Your task to perform on an android device: Open Yahoo.com Image 0: 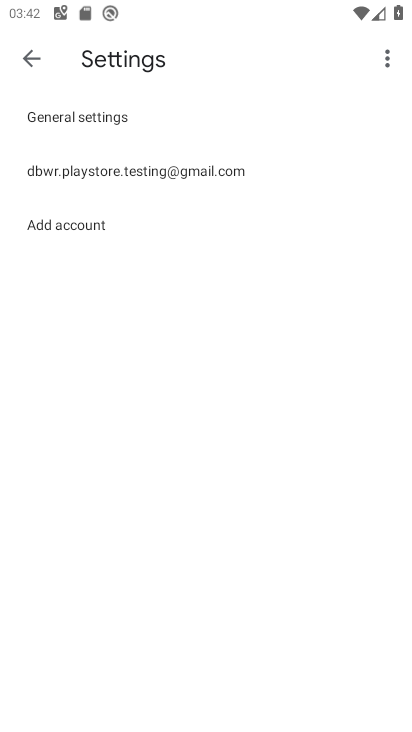
Step 0: press home button
Your task to perform on an android device: Open Yahoo.com Image 1: 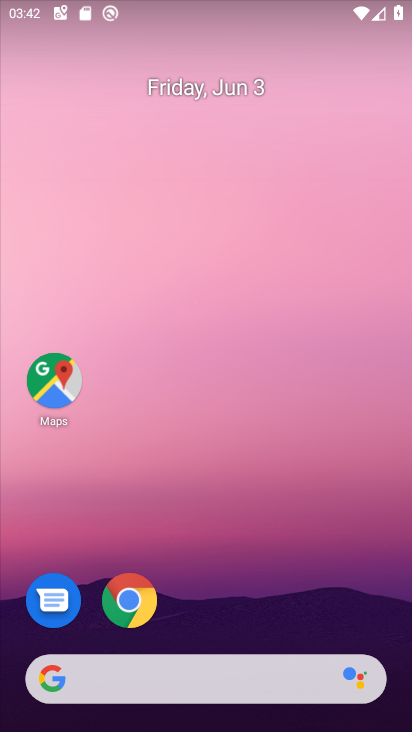
Step 1: click (126, 599)
Your task to perform on an android device: Open Yahoo.com Image 2: 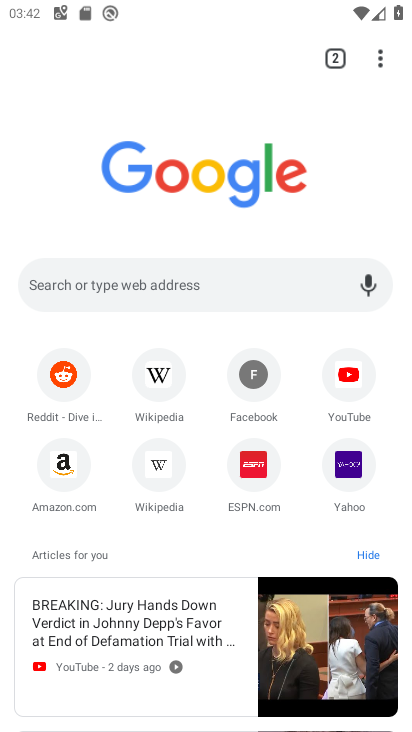
Step 2: click (354, 468)
Your task to perform on an android device: Open Yahoo.com Image 3: 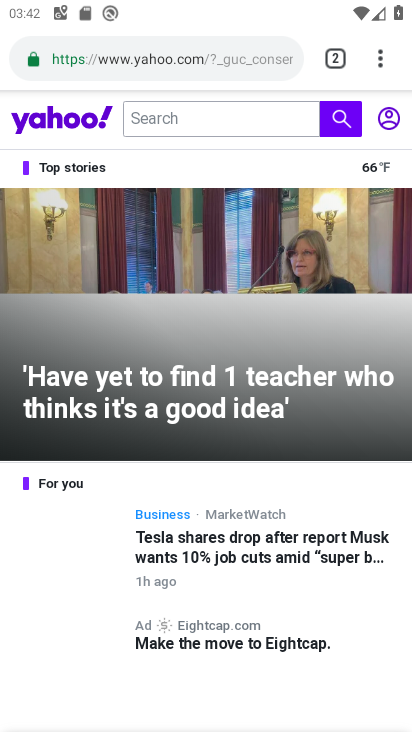
Step 3: task complete